Your task to perform on an android device: turn off sleep mode Image 0: 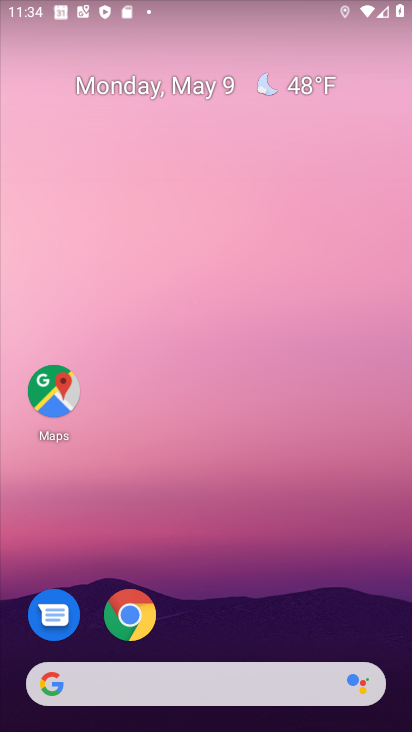
Step 0: drag from (260, 558) to (219, 183)
Your task to perform on an android device: turn off sleep mode Image 1: 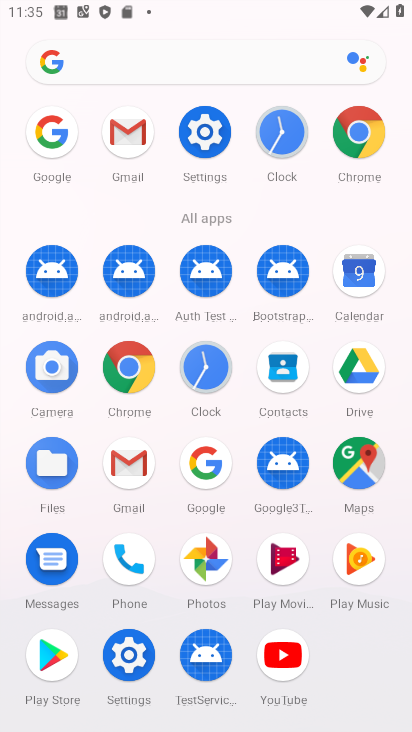
Step 1: click (208, 134)
Your task to perform on an android device: turn off sleep mode Image 2: 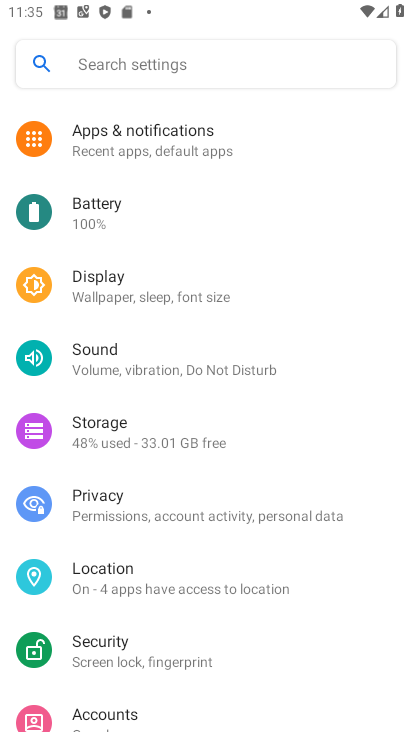
Step 2: click (144, 286)
Your task to perform on an android device: turn off sleep mode Image 3: 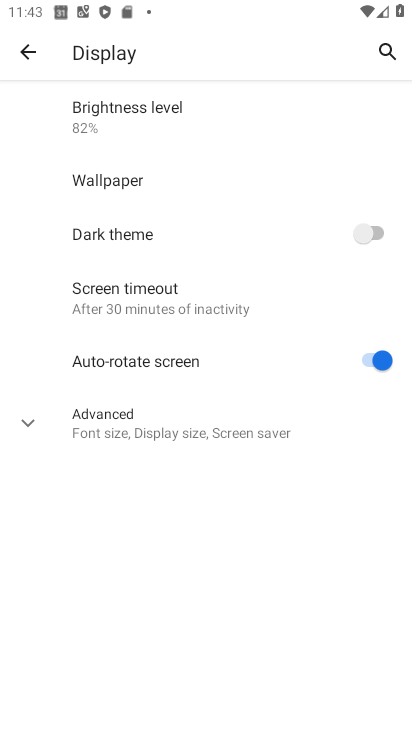
Step 3: task complete